Your task to perform on an android device: Open Youtube and go to the subscriptions tab Image 0: 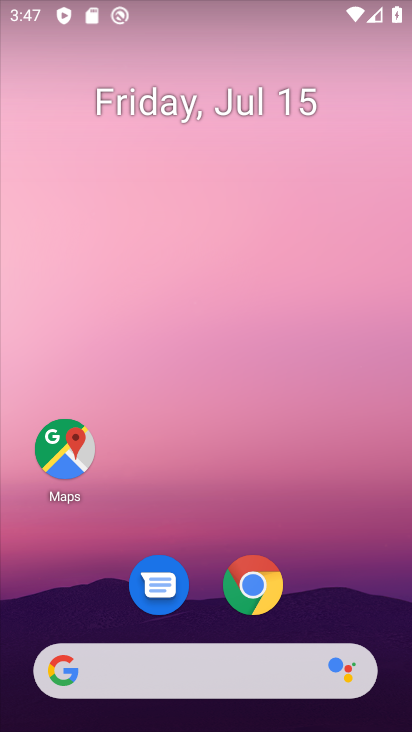
Step 0: drag from (246, 522) to (250, 34)
Your task to perform on an android device: Open Youtube and go to the subscriptions tab Image 1: 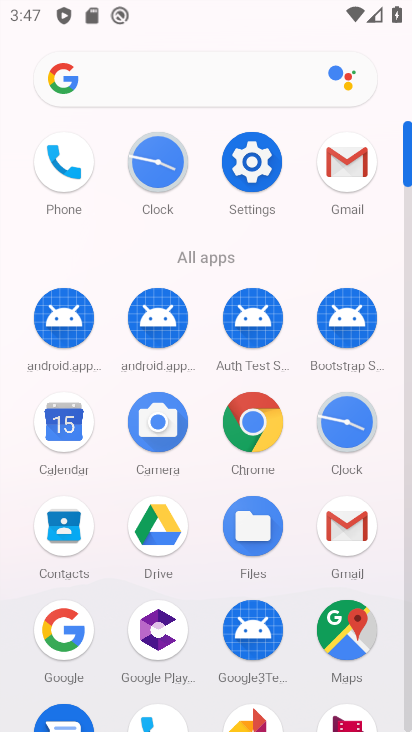
Step 1: drag from (314, 529) to (297, 150)
Your task to perform on an android device: Open Youtube and go to the subscriptions tab Image 2: 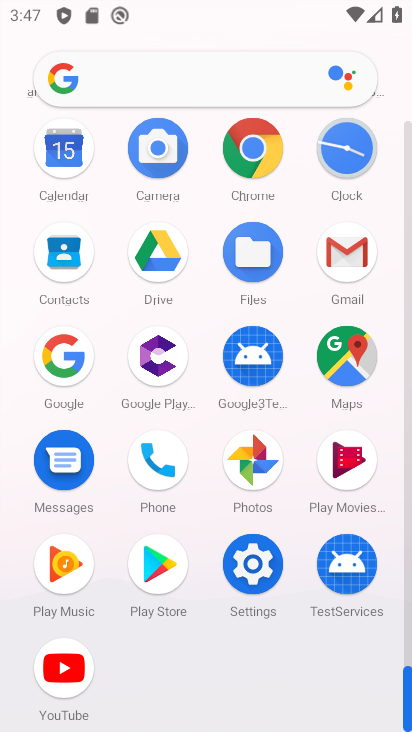
Step 2: click (60, 675)
Your task to perform on an android device: Open Youtube and go to the subscriptions tab Image 3: 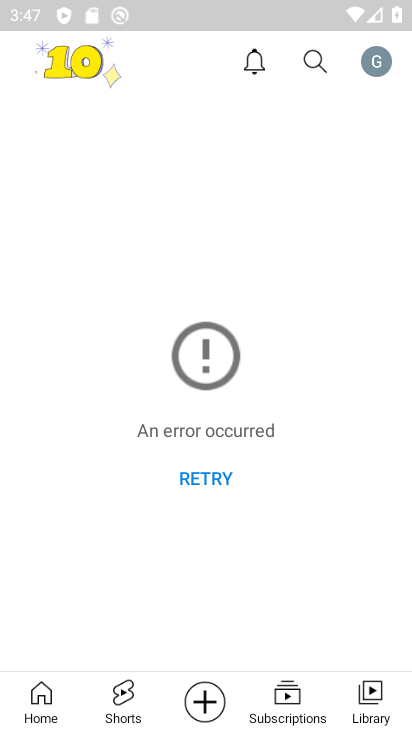
Step 3: click (291, 701)
Your task to perform on an android device: Open Youtube and go to the subscriptions tab Image 4: 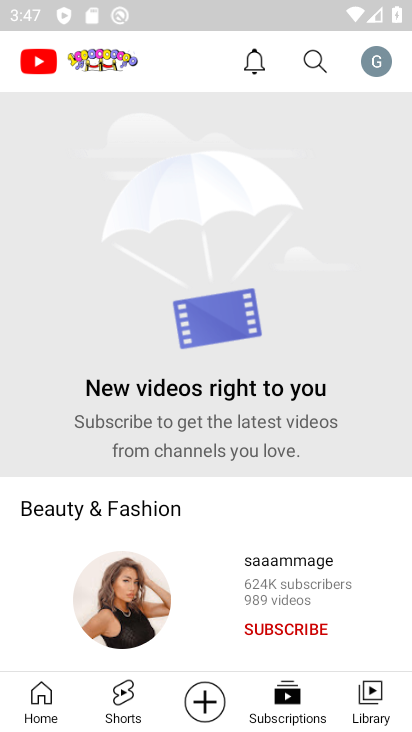
Step 4: task complete